Your task to perform on an android device: turn on sleep mode Image 0: 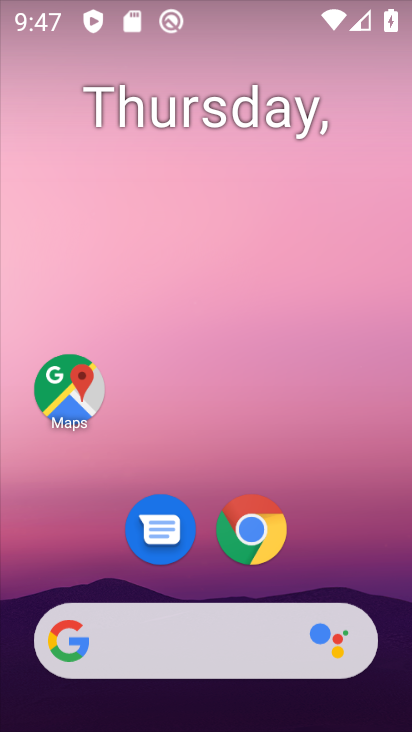
Step 0: drag from (323, 451) to (206, 78)
Your task to perform on an android device: turn on sleep mode Image 1: 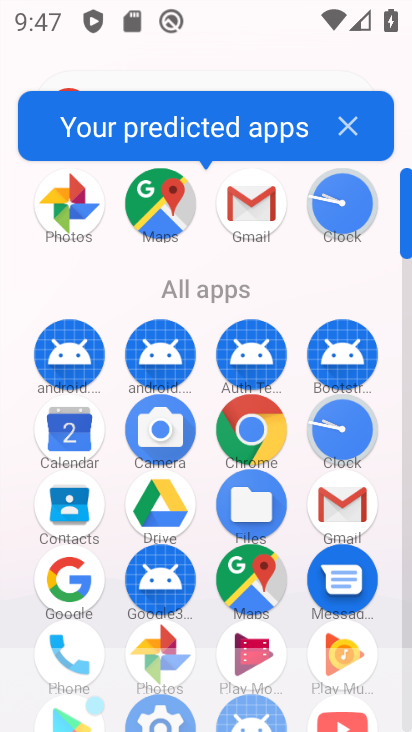
Step 1: drag from (203, 646) to (203, 234)
Your task to perform on an android device: turn on sleep mode Image 2: 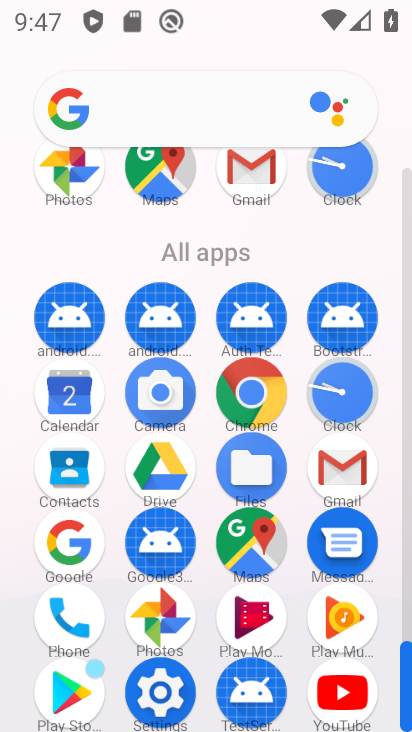
Step 2: click (170, 663)
Your task to perform on an android device: turn on sleep mode Image 3: 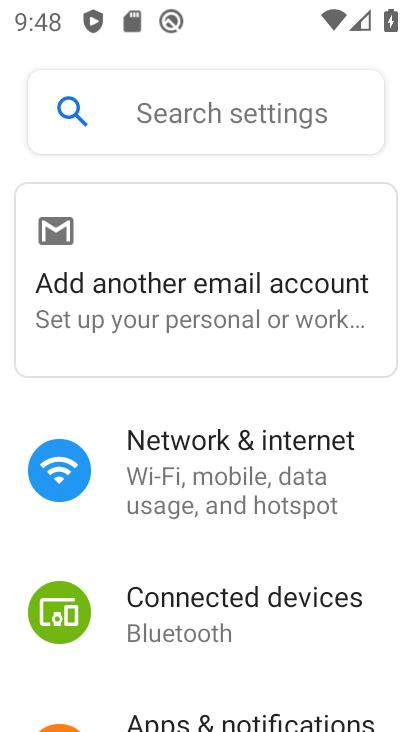
Step 3: drag from (319, 632) to (304, 459)
Your task to perform on an android device: turn on sleep mode Image 4: 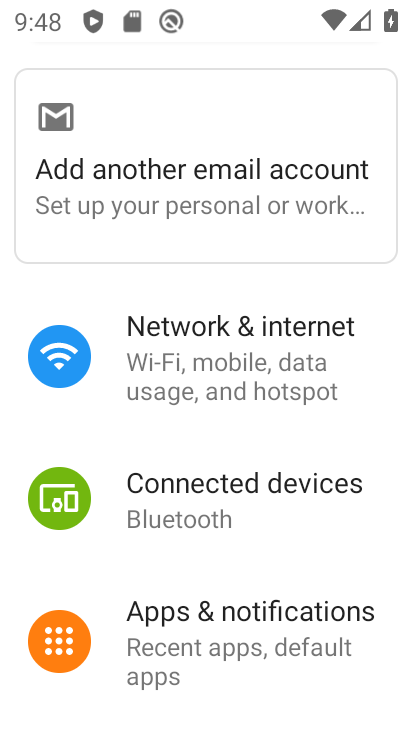
Step 4: drag from (223, 668) to (213, 329)
Your task to perform on an android device: turn on sleep mode Image 5: 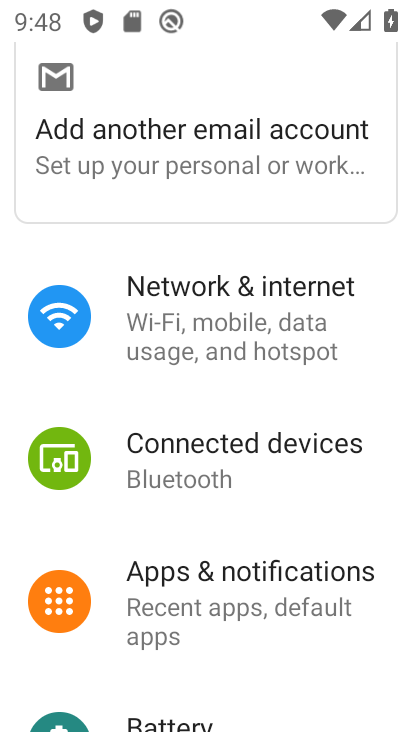
Step 5: drag from (265, 674) to (198, 373)
Your task to perform on an android device: turn on sleep mode Image 6: 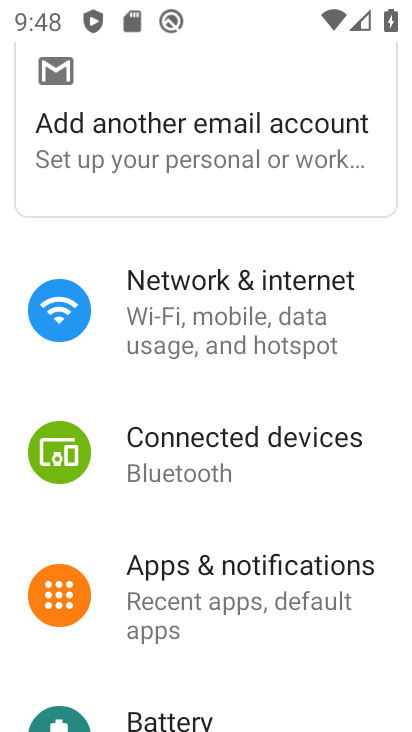
Step 6: drag from (222, 633) to (208, 288)
Your task to perform on an android device: turn on sleep mode Image 7: 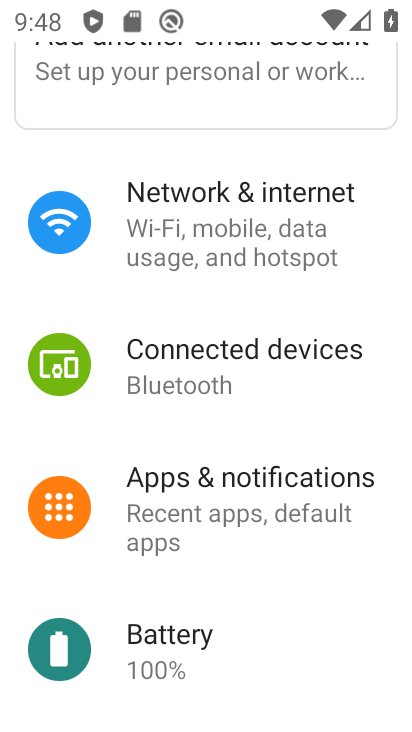
Step 7: drag from (217, 603) to (206, 408)
Your task to perform on an android device: turn on sleep mode Image 8: 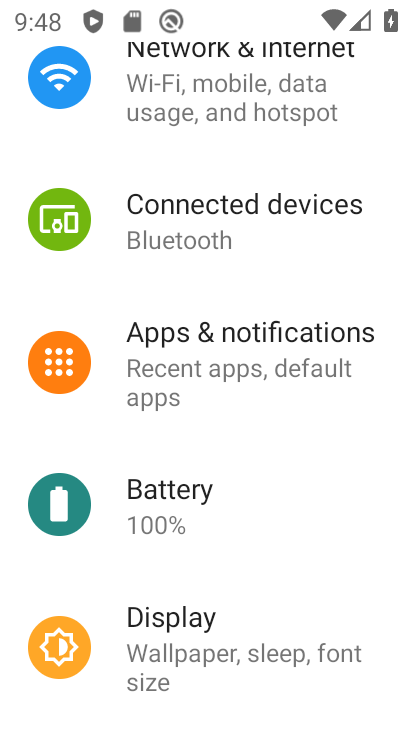
Step 8: click (165, 637)
Your task to perform on an android device: turn on sleep mode Image 9: 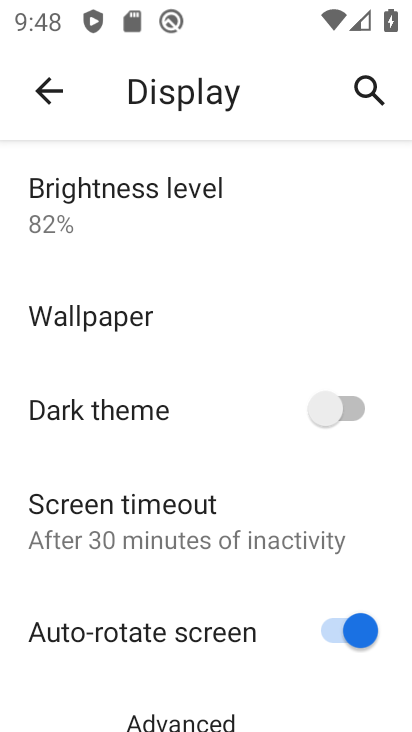
Step 9: task complete